Your task to perform on an android device: Add "usb-a to usb-b" to the cart on bestbuy, then select checkout. Image 0: 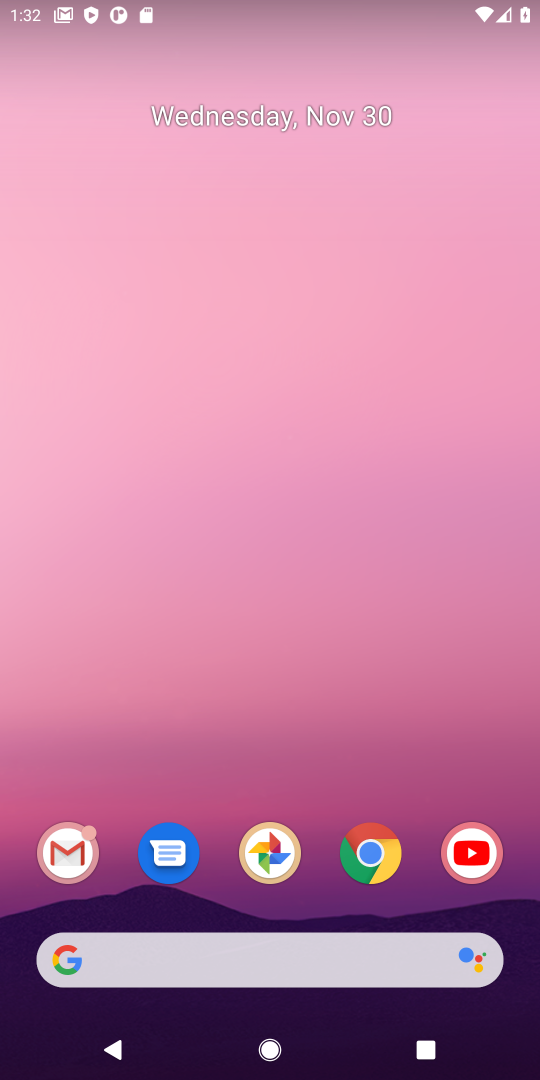
Step 0: click (369, 855)
Your task to perform on an android device: Add "usb-a to usb-b" to the cart on bestbuy, then select checkout. Image 1: 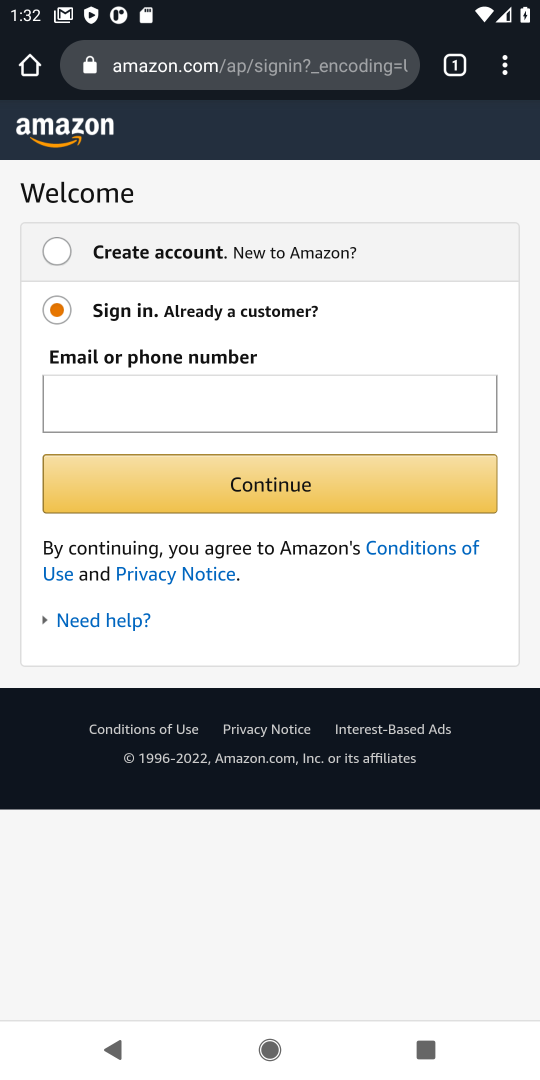
Step 1: click (219, 68)
Your task to perform on an android device: Add "usb-a to usb-b" to the cart on bestbuy, then select checkout. Image 2: 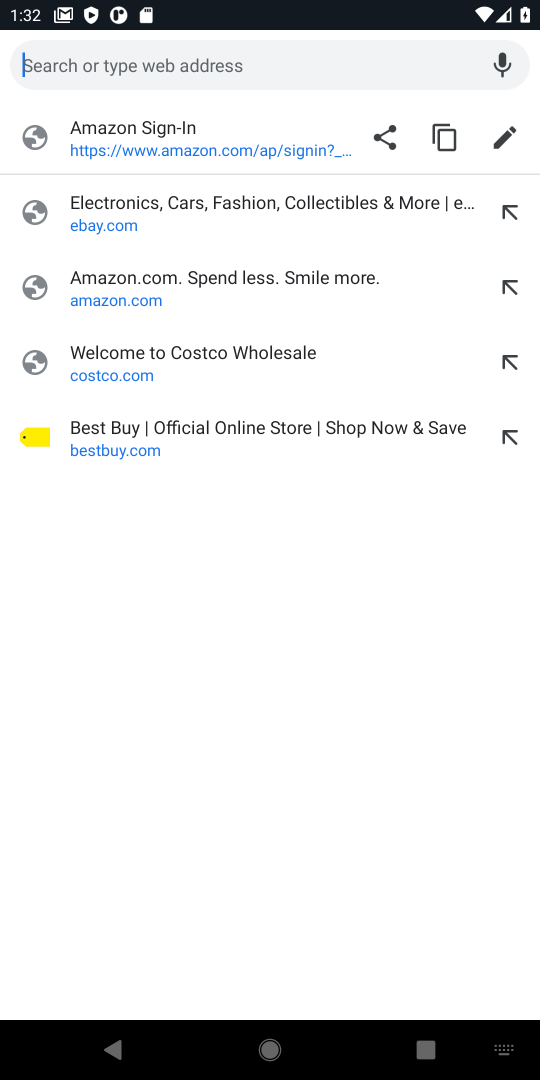
Step 2: click (111, 442)
Your task to perform on an android device: Add "usb-a to usb-b" to the cart on bestbuy, then select checkout. Image 3: 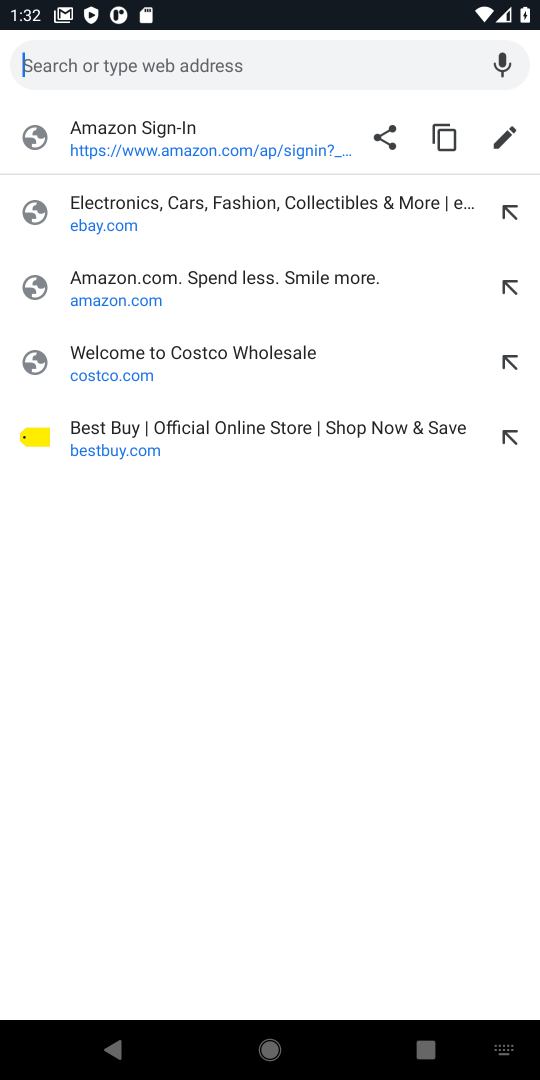
Step 3: click (136, 442)
Your task to perform on an android device: Add "usb-a to usb-b" to the cart on bestbuy, then select checkout. Image 4: 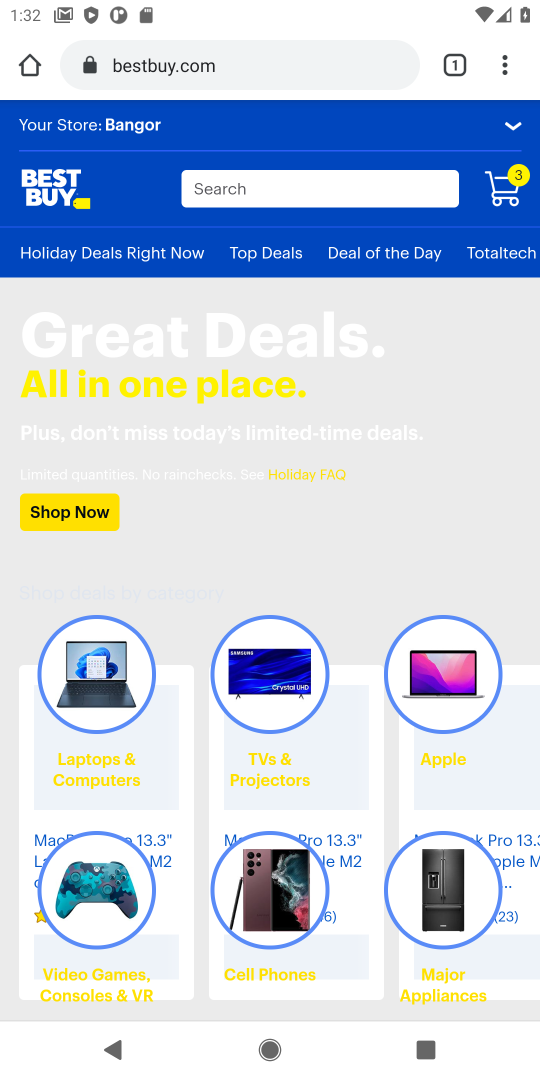
Step 4: click (261, 191)
Your task to perform on an android device: Add "usb-a to usb-b" to the cart on bestbuy, then select checkout. Image 5: 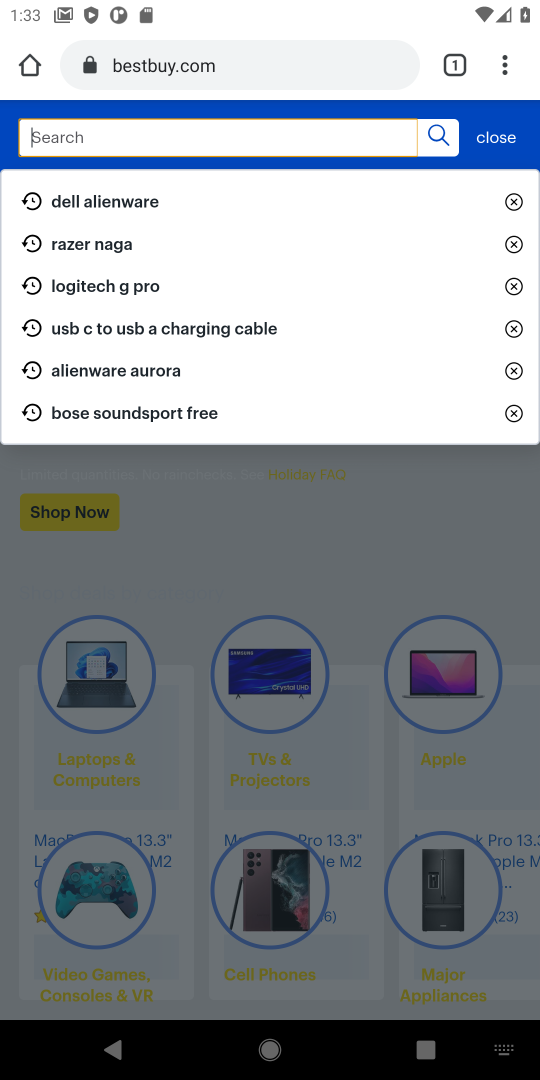
Step 5: type "usb-a to usb-b"
Your task to perform on an android device: Add "usb-a to usb-b" to the cart on bestbuy, then select checkout. Image 6: 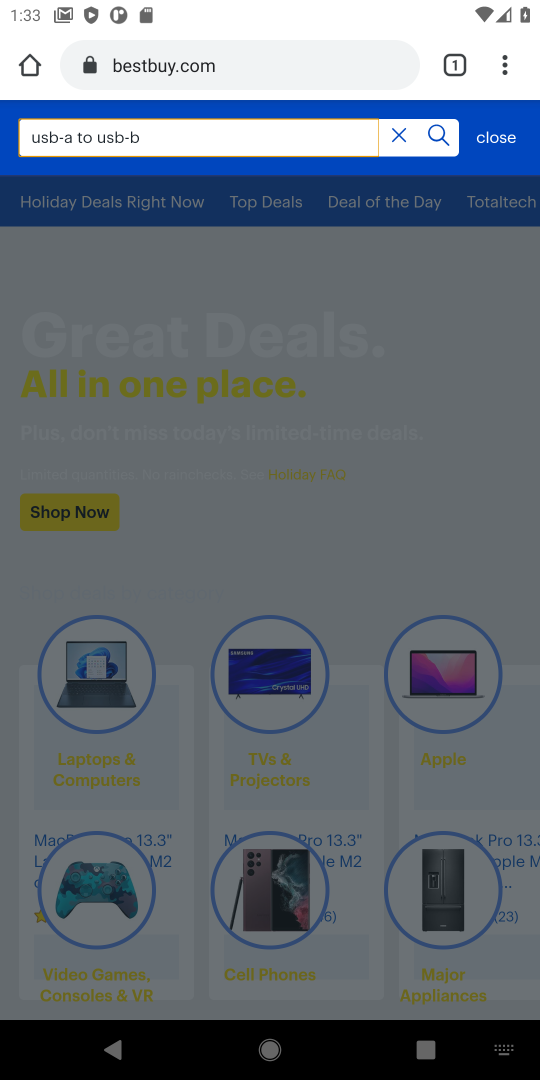
Step 6: click (438, 139)
Your task to perform on an android device: Add "usb-a to usb-b" to the cart on bestbuy, then select checkout. Image 7: 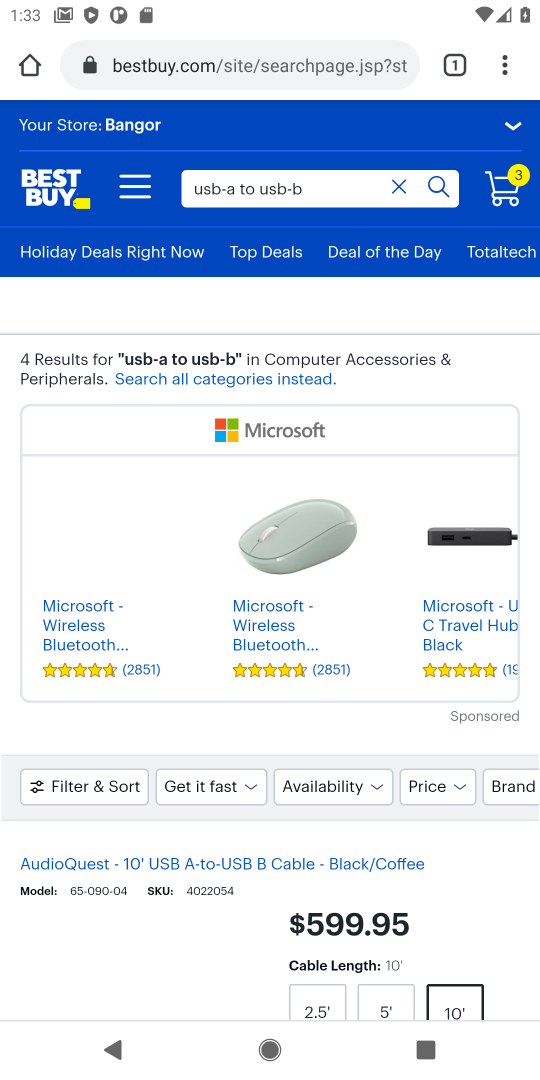
Step 7: drag from (270, 697) to (279, 343)
Your task to perform on an android device: Add "usb-a to usb-b" to the cart on bestbuy, then select checkout. Image 8: 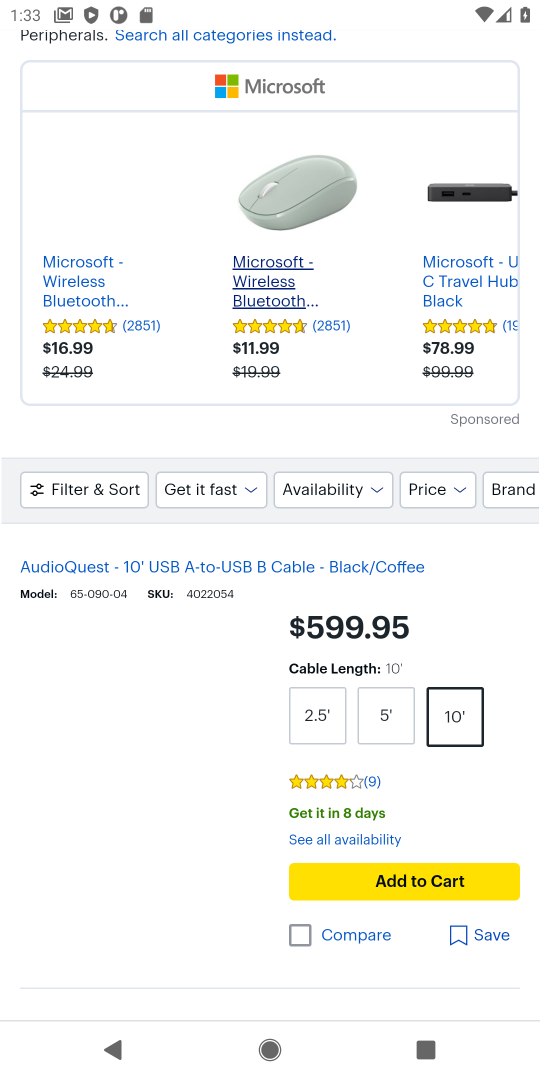
Step 8: drag from (172, 722) to (190, 483)
Your task to perform on an android device: Add "usb-a to usb-b" to the cart on bestbuy, then select checkout. Image 9: 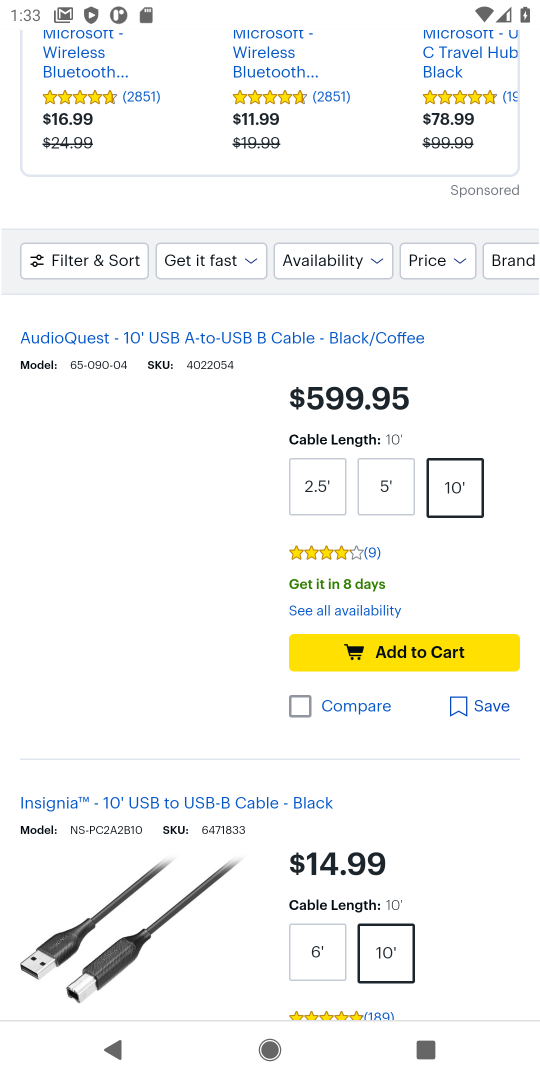
Step 9: click (385, 651)
Your task to perform on an android device: Add "usb-a to usb-b" to the cart on bestbuy, then select checkout. Image 10: 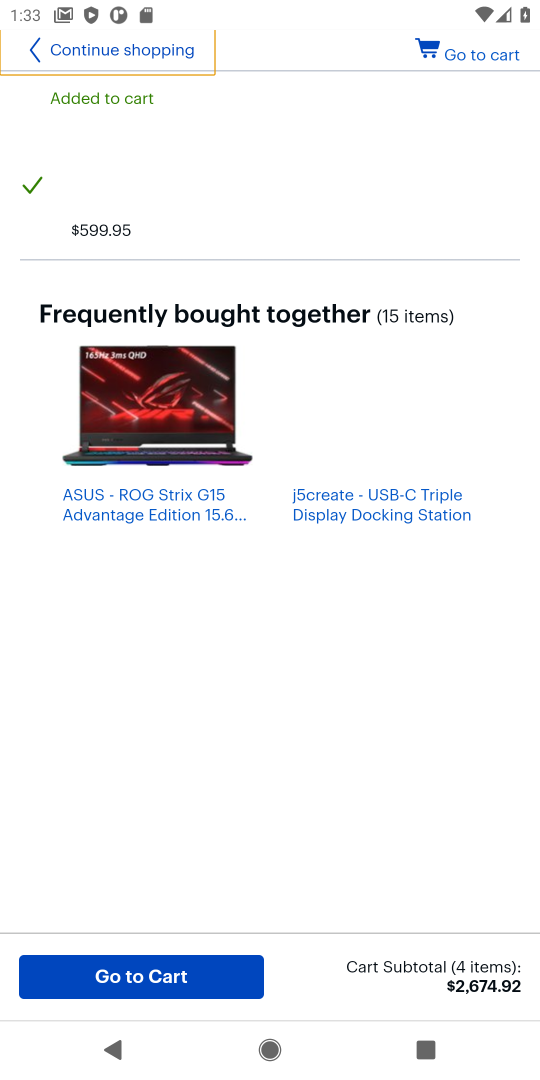
Step 10: click (476, 60)
Your task to perform on an android device: Add "usb-a to usb-b" to the cart on bestbuy, then select checkout. Image 11: 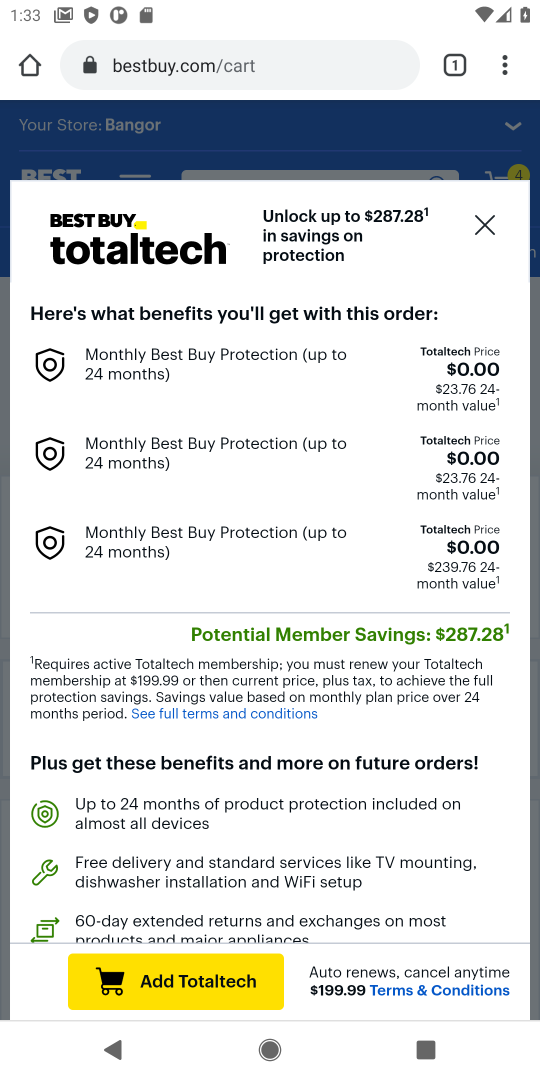
Step 11: click (482, 227)
Your task to perform on an android device: Add "usb-a to usb-b" to the cart on bestbuy, then select checkout. Image 12: 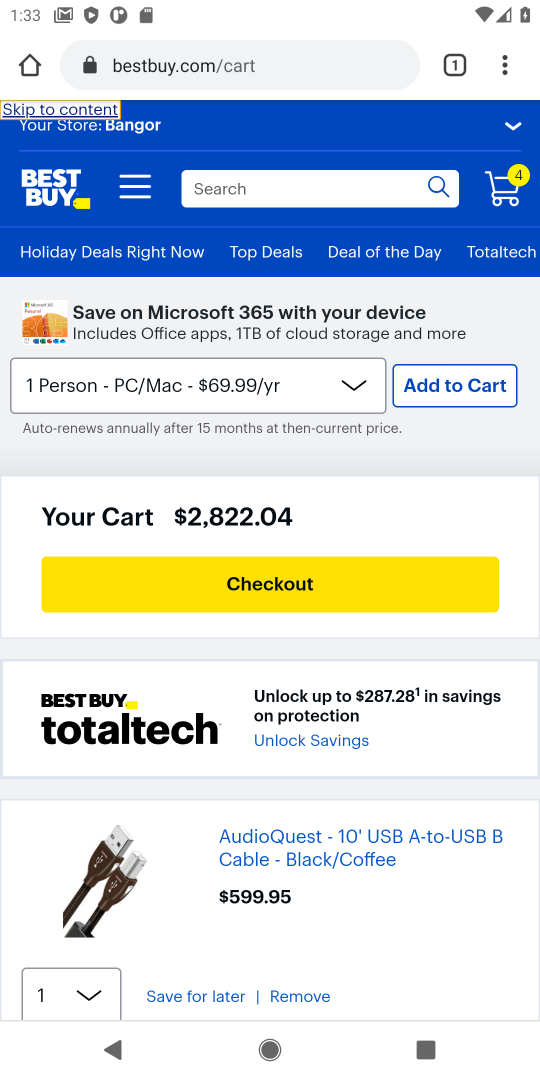
Step 12: click (259, 590)
Your task to perform on an android device: Add "usb-a to usb-b" to the cart on bestbuy, then select checkout. Image 13: 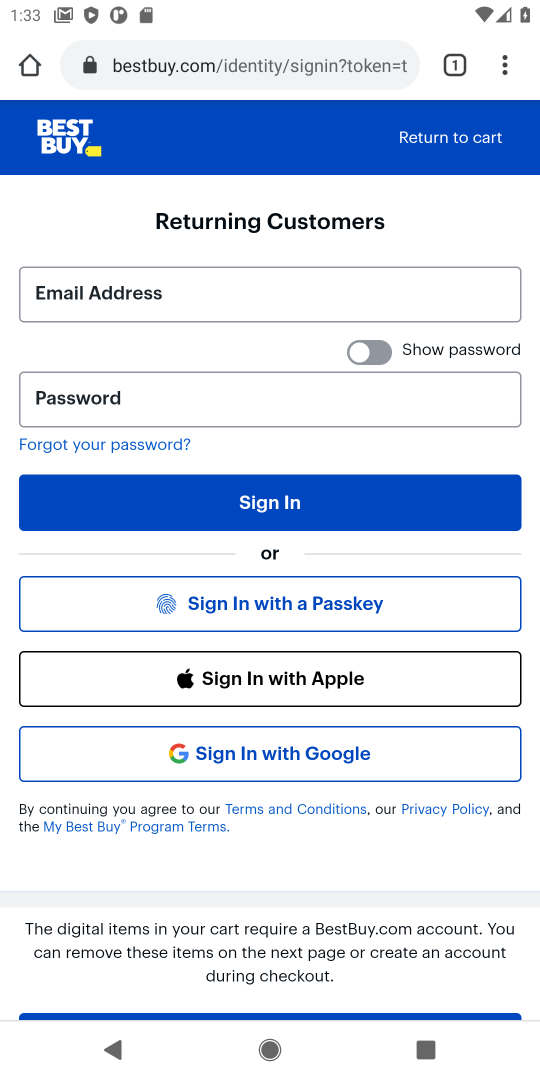
Step 13: task complete